Your task to perform on an android device: Open ESPN.com Image 0: 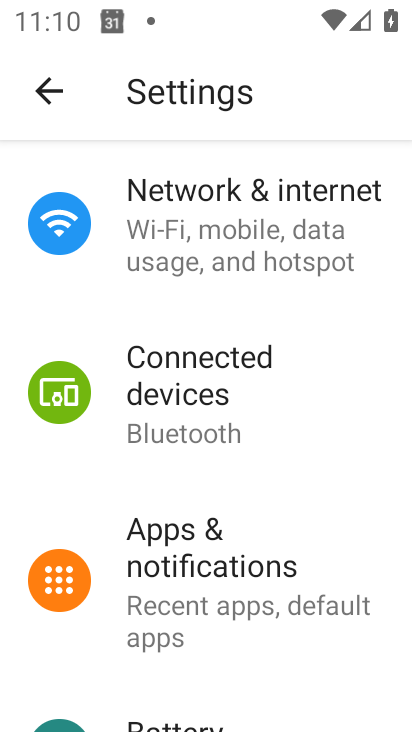
Step 0: press home button
Your task to perform on an android device: Open ESPN.com Image 1: 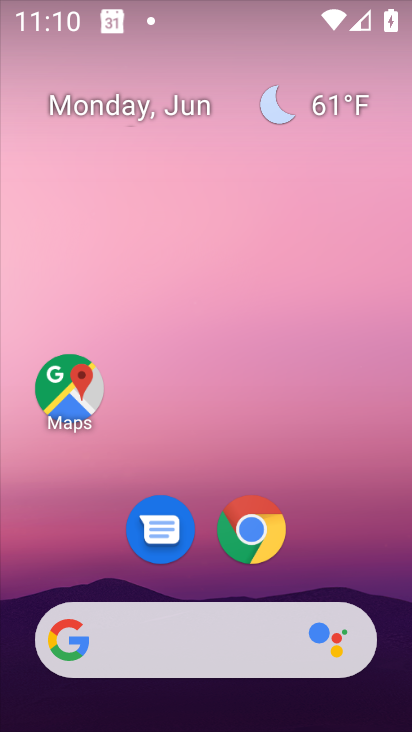
Step 1: click (252, 528)
Your task to perform on an android device: Open ESPN.com Image 2: 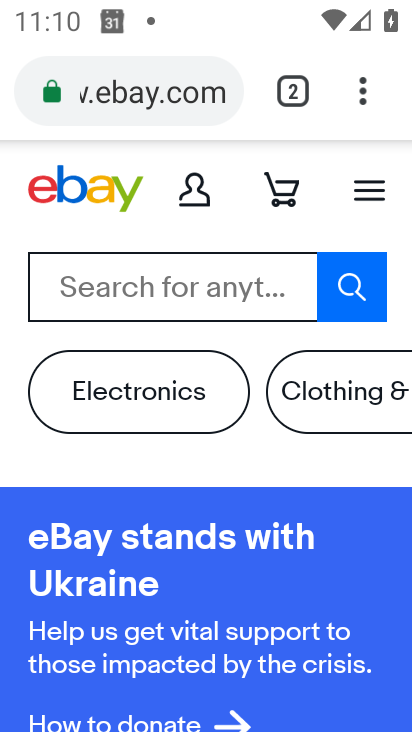
Step 2: drag from (365, 105) to (332, 167)
Your task to perform on an android device: Open ESPN.com Image 3: 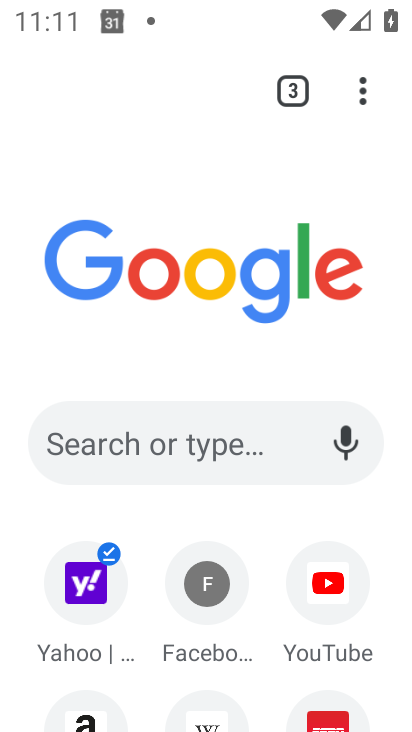
Step 3: drag from (205, 578) to (291, 296)
Your task to perform on an android device: Open ESPN.com Image 4: 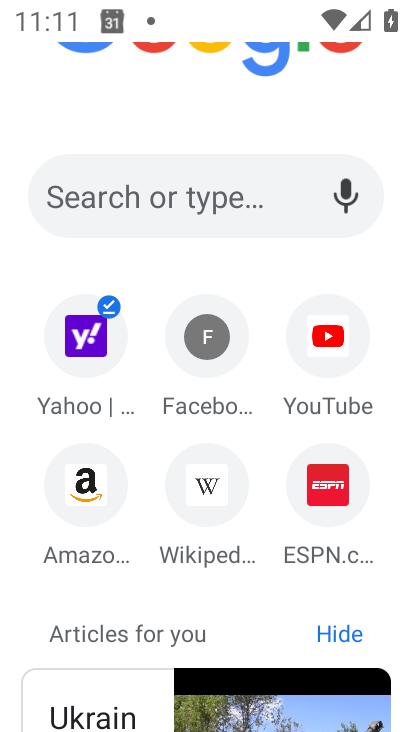
Step 4: click (332, 483)
Your task to perform on an android device: Open ESPN.com Image 5: 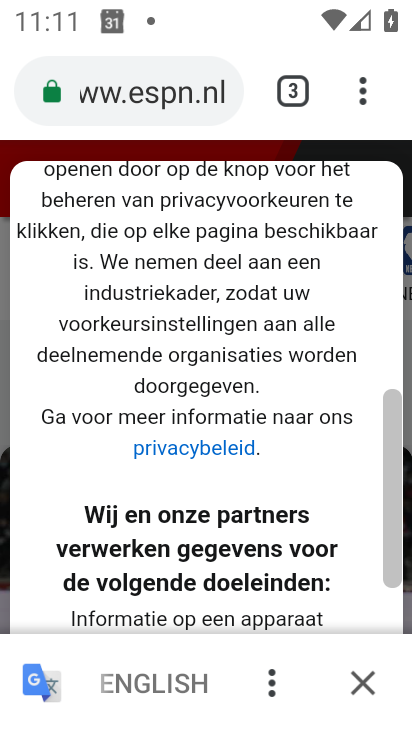
Step 5: task complete